Your task to perform on an android device: turn on sleep mode Image 0: 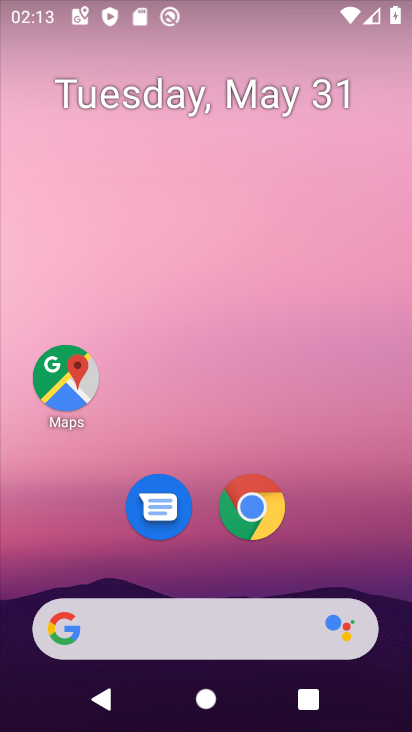
Step 0: drag from (192, 580) to (199, 139)
Your task to perform on an android device: turn on sleep mode Image 1: 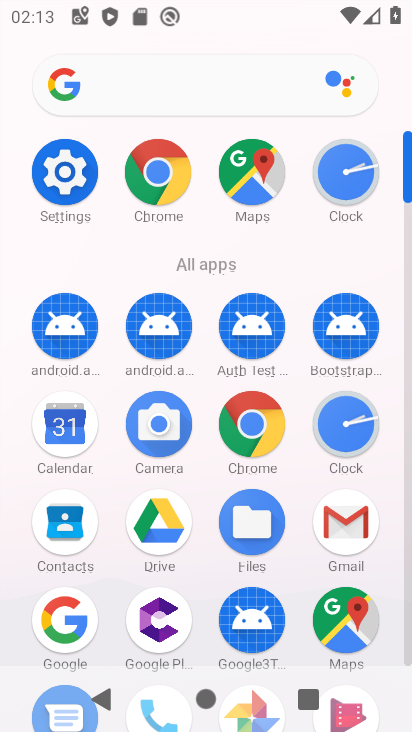
Step 1: click (65, 150)
Your task to perform on an android device: turn on sleep mode Image 2: 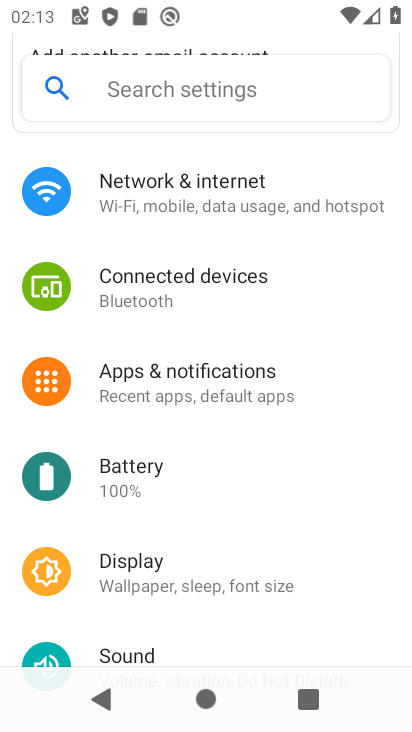
Step 2: task complete